Your task to perform on an android device: Go to ESPN.com Image 0: 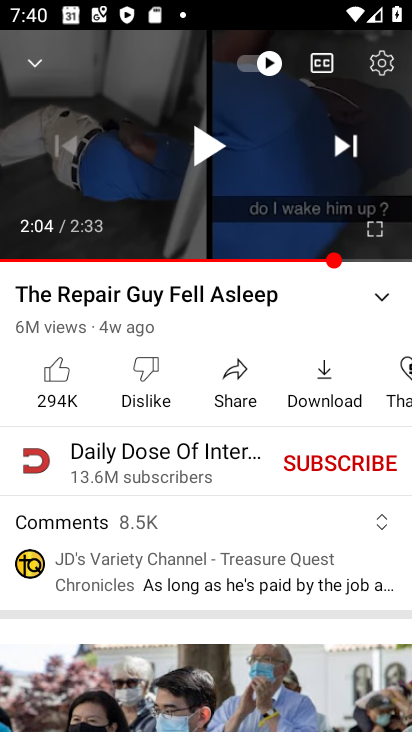
Step 0: press home button
Your task to perform on an android device: Go to ESPN.com Image 1: 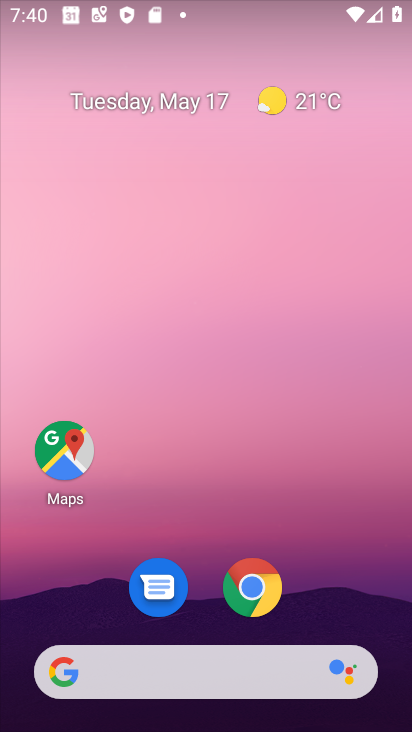
Step 1: drag from (378, 602) to (371, 186)
Your task to perform on an android device: Go to ESPN.com Image 2: 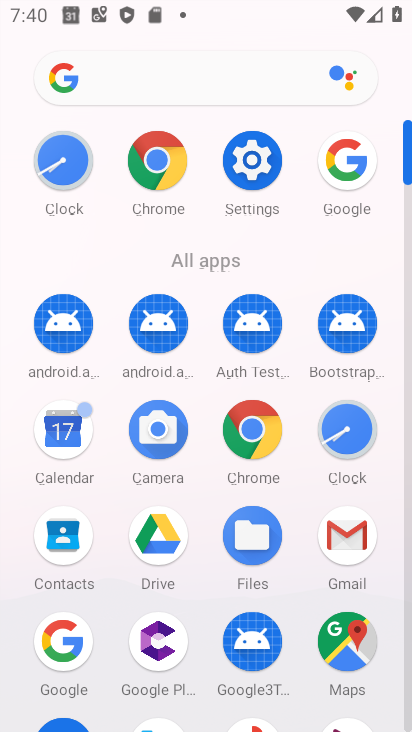
Step 2: click (256, 446)
Your task to perform on an android device: Go to ESPN.com Image 3: 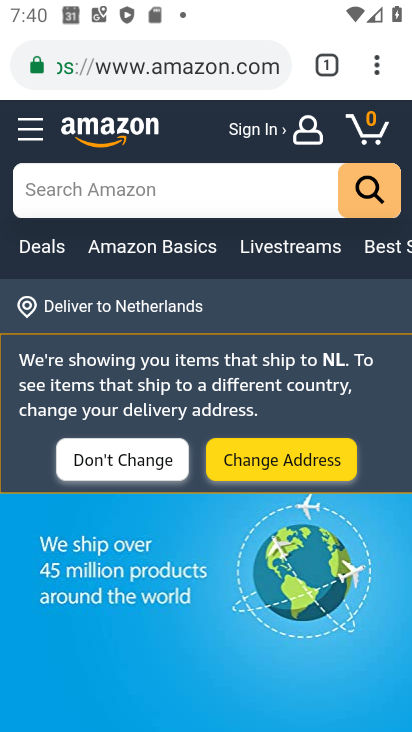
Step 3: press back button
Your task to perform on an android device: Go to ESPN.com Image 4: 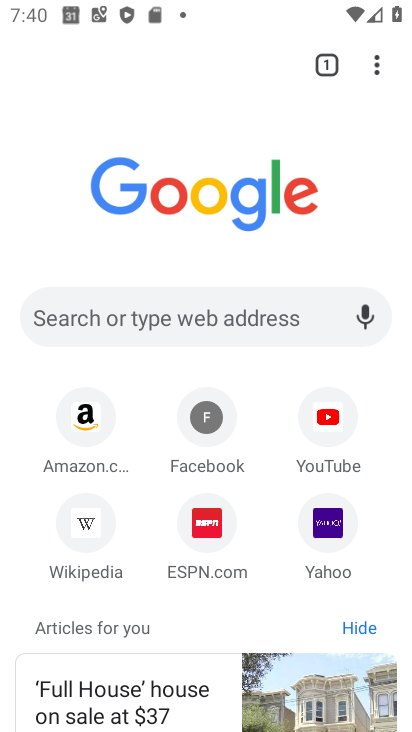
Step 4: click (190, 544)
Your task to perform on an android device: Go to ESPN.com Image 5: 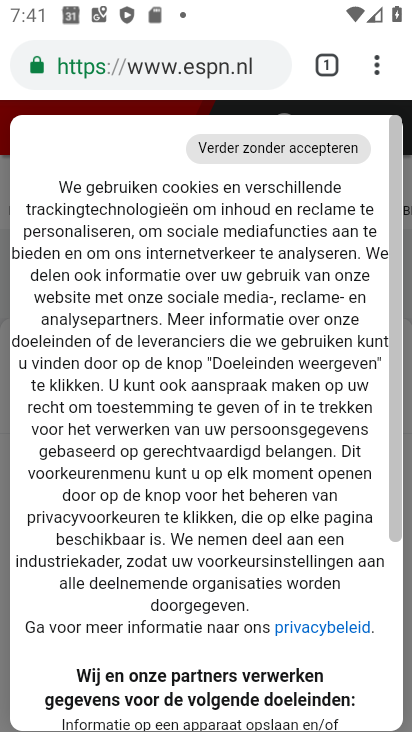
Step 5: task complete